Your task to perform on an android device: toggle pop-ups in chrome Image 0: 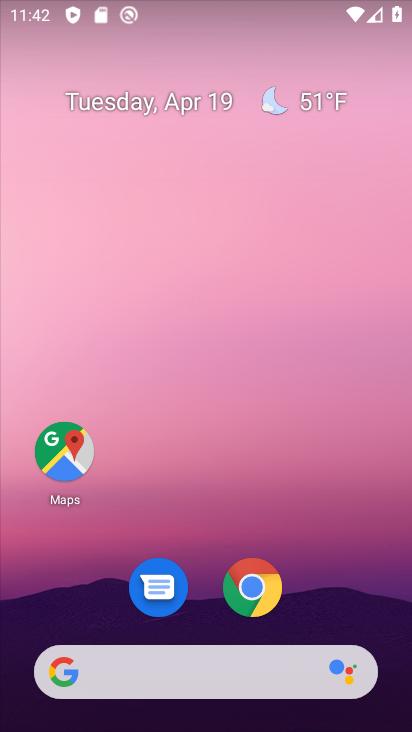
Step 0: click (259, 613)
Your task to perform on an android device: toggle pop-ups in chrome Image 1: 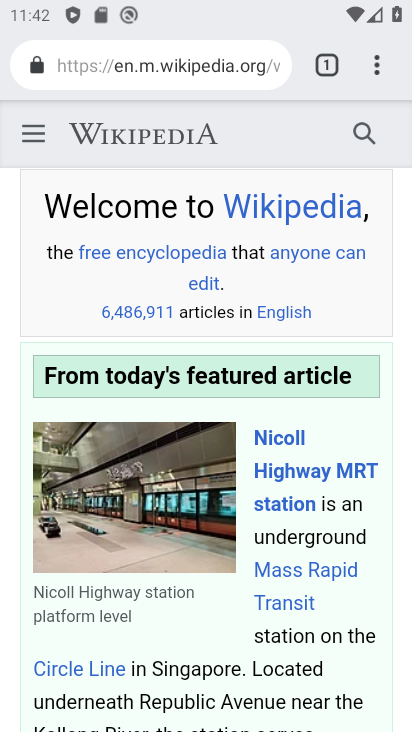
Step 1: click (373, 65)
Your task to perform on an android device: toggle pop-ups in chrome Image 2: 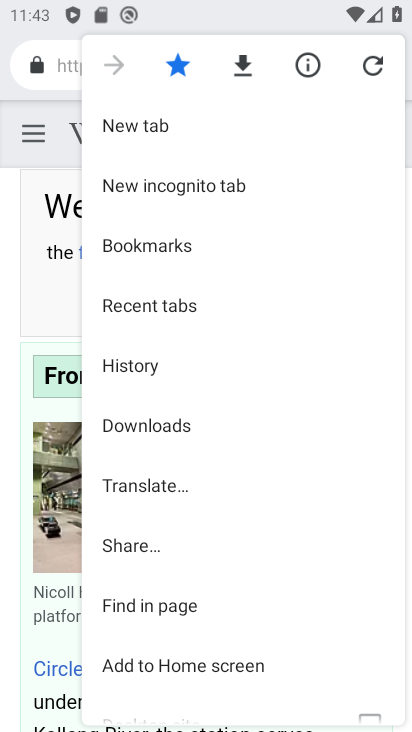
Step 2: drag from (239, 603) to (283, 175)
Your task to perform on an android device: toggle pop-ups in chrome Image 3: 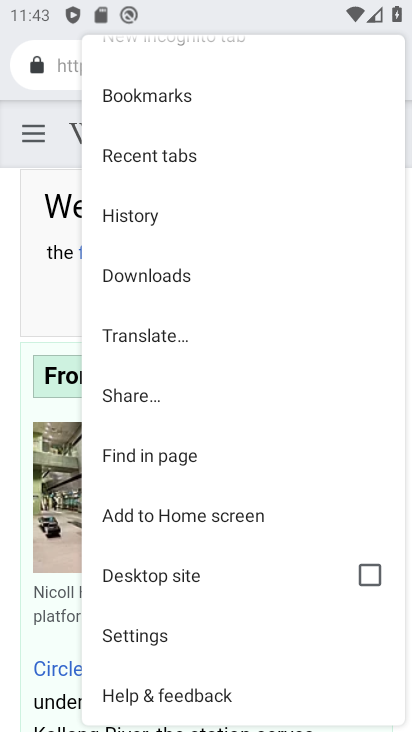
Step 3: click (167, 642)
Your task to perform on an android device: toggle pop-ups in chrome Image 4: 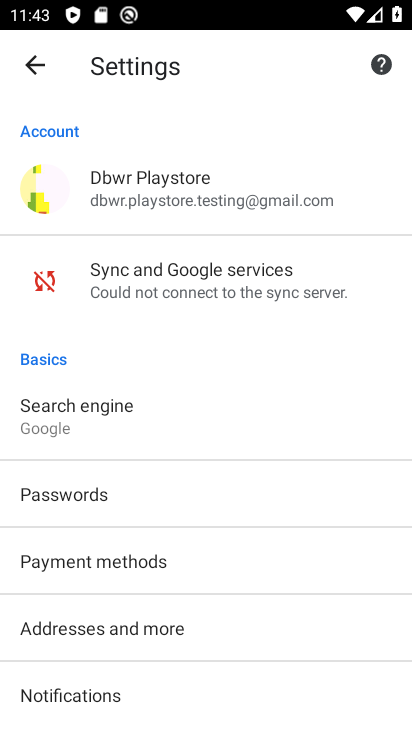
Step 4: drag from (170, 597) to (210, 255)
Your task to perform on an android device: toggle pop-ups in chrome Image 5: 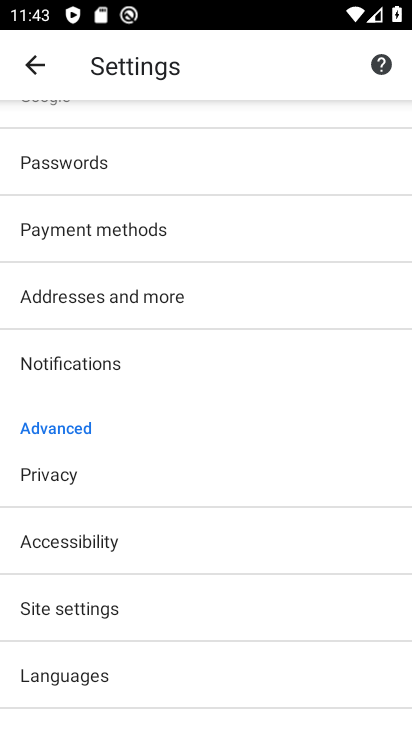
Step 5: click (93, 624)
Your task to perform on an android device: toggle pop-ups in chrome Image 6: 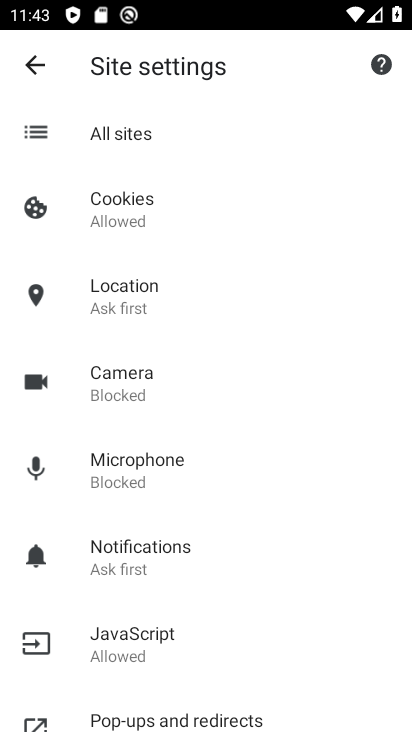
Step 6: drag from (195, 719) to (225, 428)
Your task to perform on an android device: toggle pop-ups in chrome Image 7: 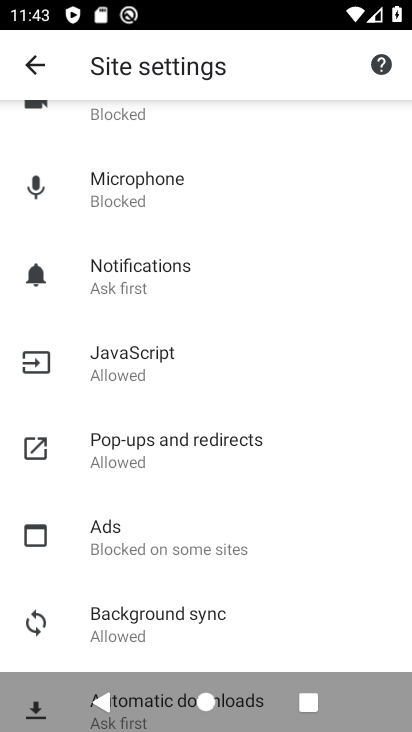
Step 7: click (166, 460)
Your task to perform on an android device: toggle pop-ups in chrome Image 8: 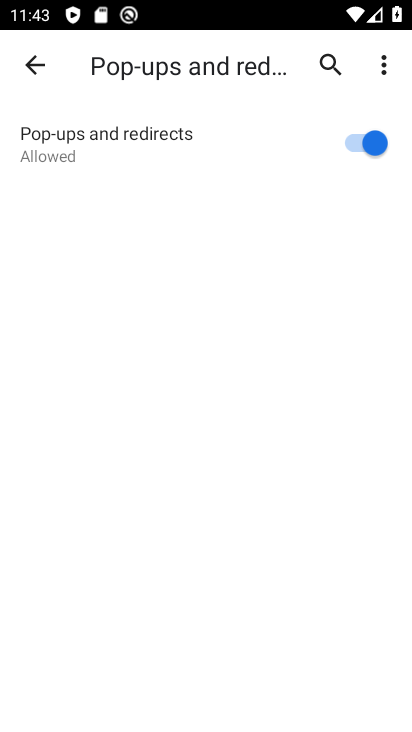
Step 8: task complete